Your task to perform on an android device: delete location history Image 0: 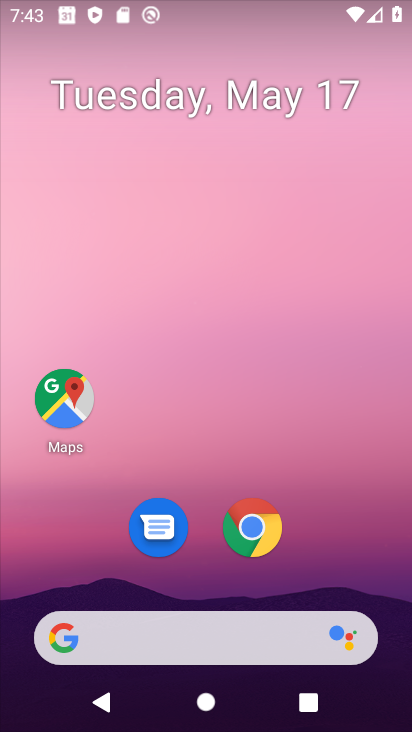
Step 0: drag from (241, 655) to (274, 147)
Your task to perform on an android device: delete location history Image 1: 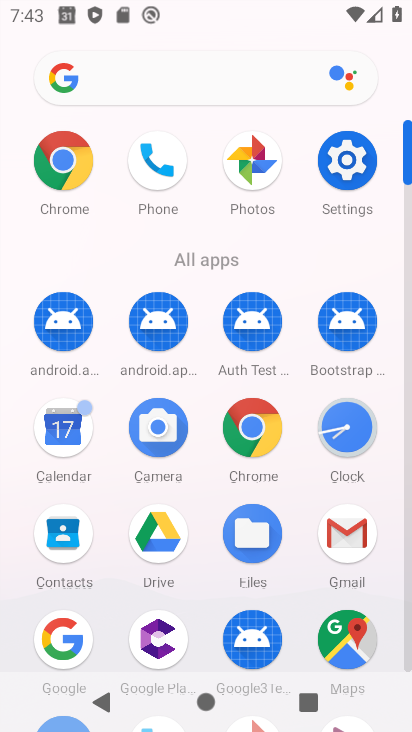
Step 1: click (328, 168)
Your task to perform on an android device: delete location history Image 2: 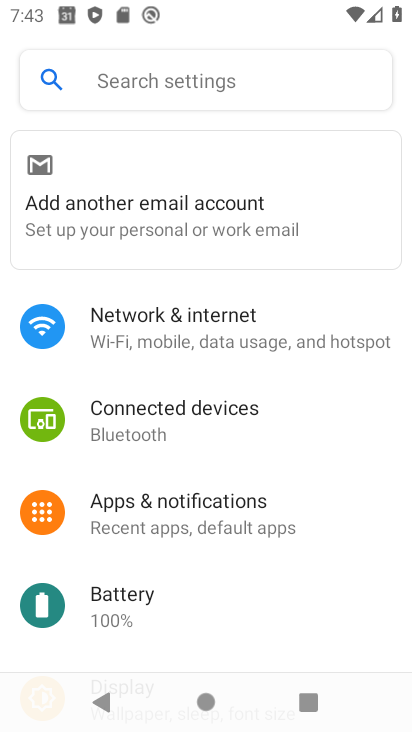
Step 2: click (185, 79)
Your task to perform on an android device: delete location history Image 3: 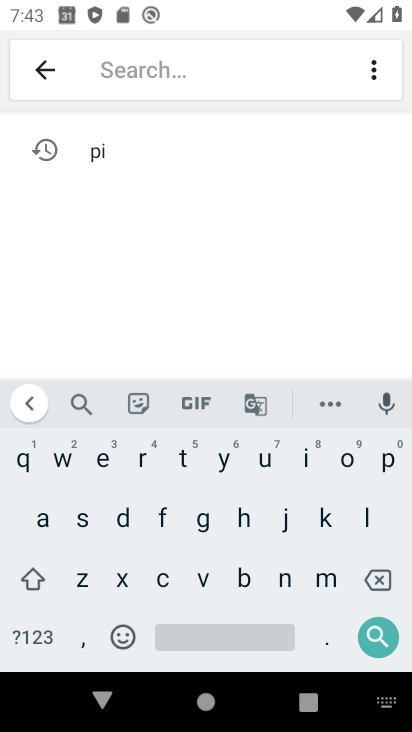
Step 3: click (371, 534)
Your task to perform on an android device: delete location history Image 4: 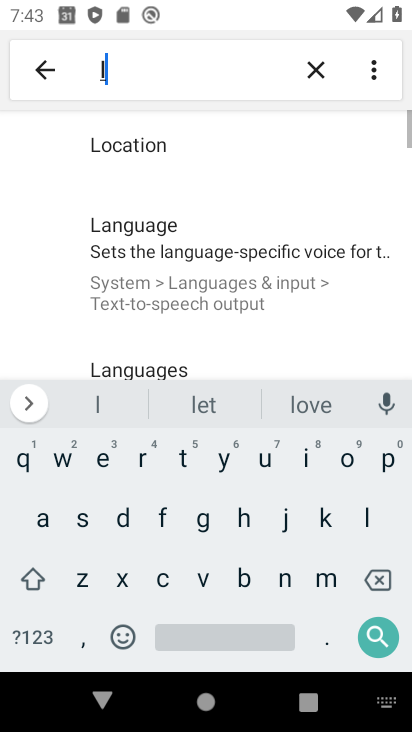
Step 4: click (339, 472)
Your task to perform on an android device: delete location history Image 5: 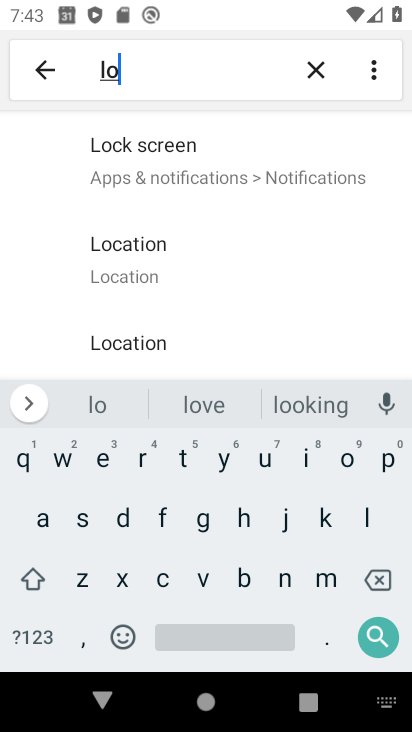
Step 5: click (181, 273)
Your task to perform on an android device: delete location history Image 6: 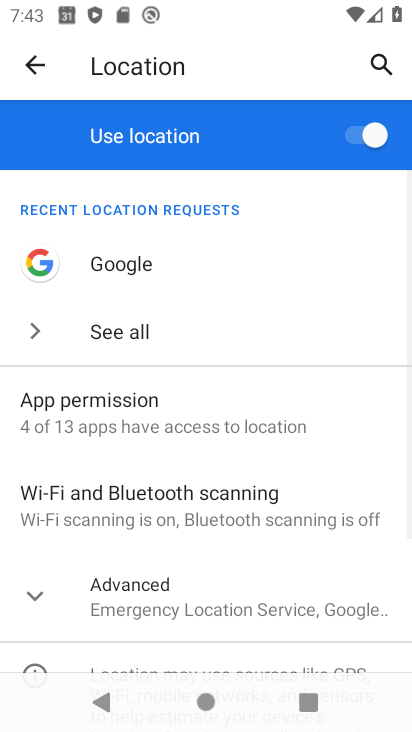
Step 6: drag from (196, 503) to (208, 315)
Your task to perform on an android device: delete location history Image 7: 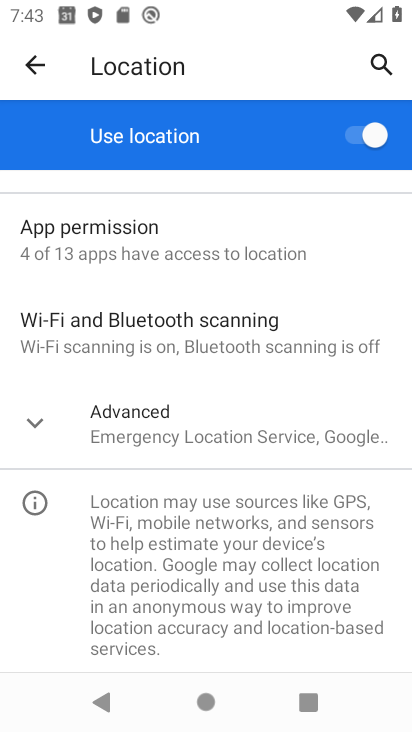
Step 7: click (39, 427)
Your task to perform on an android device: delete location history Image 8: 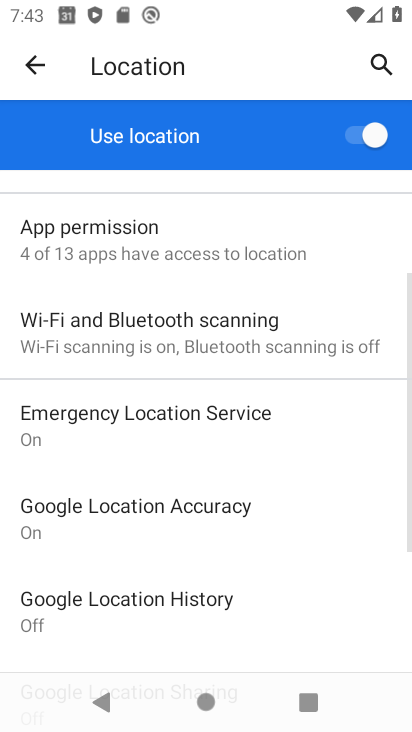
Step 8: click (152, 601)
Your task to perform on an android device: delete location history Image 9: 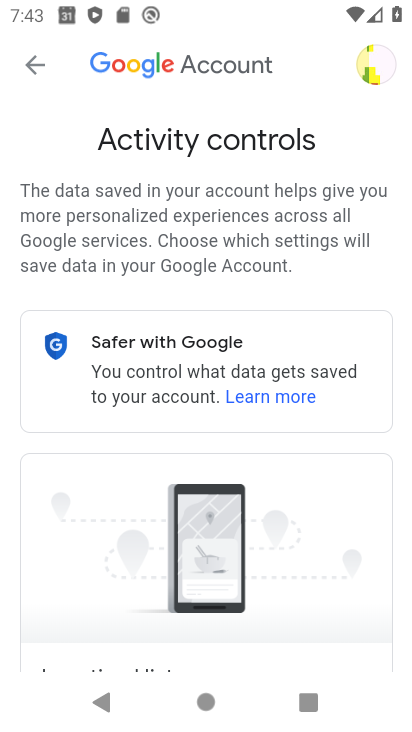
Step 9: task complete